Your task to perform on an android device: Open display settings Image 0: 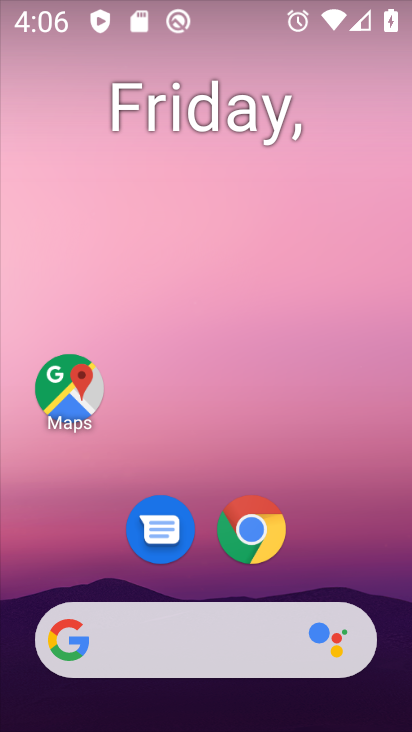
Step 0: drag from (86, 585) to (203, 220)
Your task to perform on an android device: Open display settings Image 1: 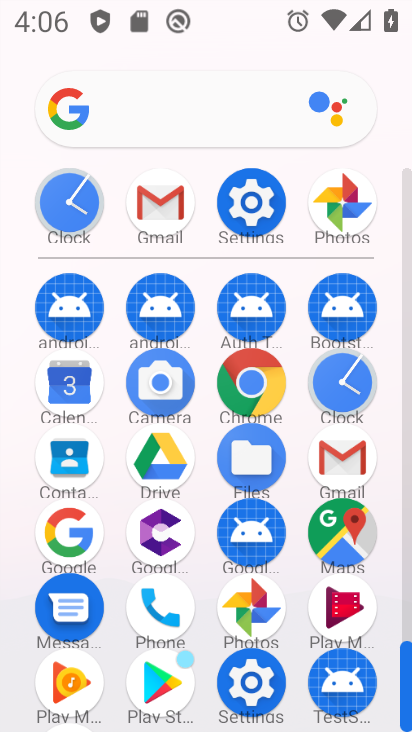
Step 1: drag from (168, 647) to (253, 367)
Your task to perform on an android device: Open display settings Image 2: 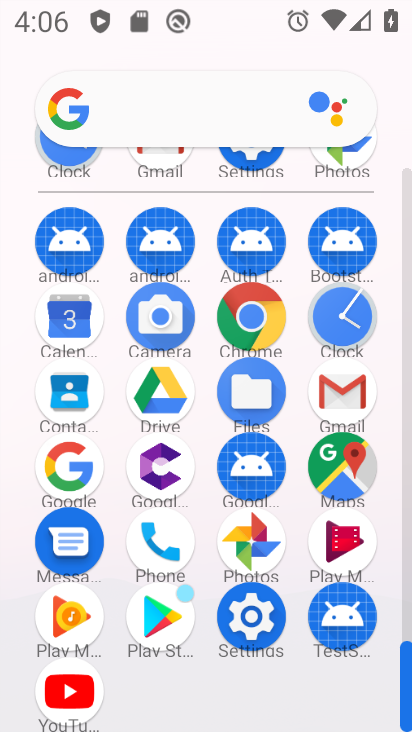
Step 2: click (264, 622)
Your task to perform on an android device: Open display settings Image 3: 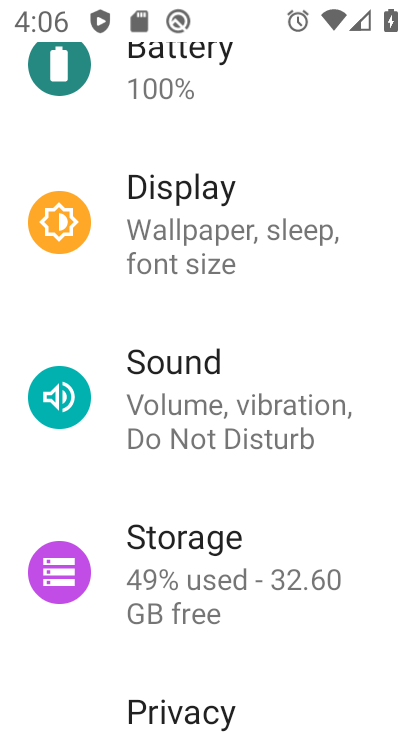
Step 3: click (245, 281)
Your task to perform on an android device: Open display settings Image 4: 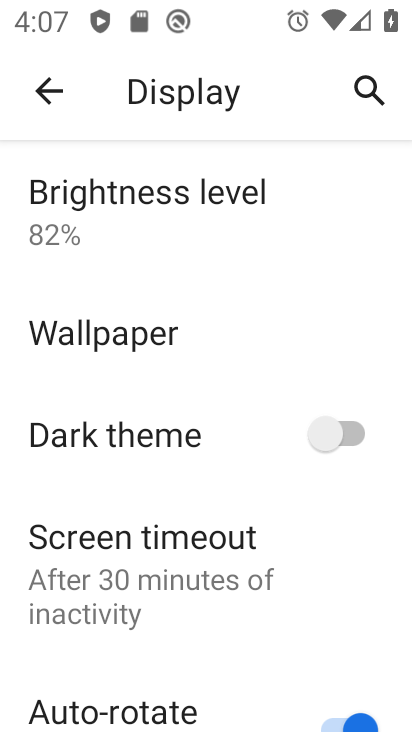
Step 4: task complete